Your task to perform on an android device: make emails show in primary in the gmail app Image 0: 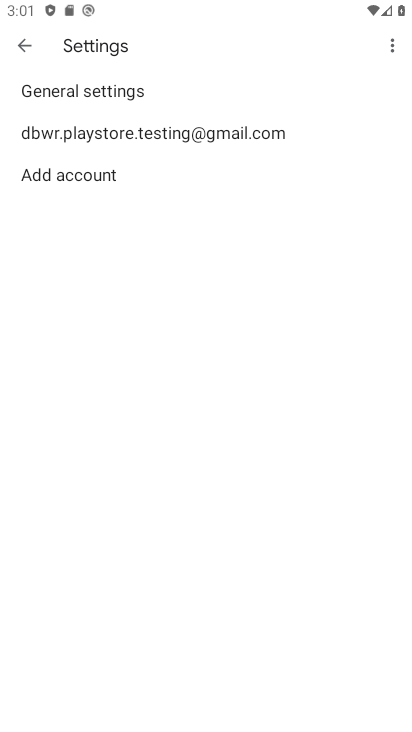
Step 0: press home button
Your task to perform on an android device: make emails show in primary in the gmail app Image 1: 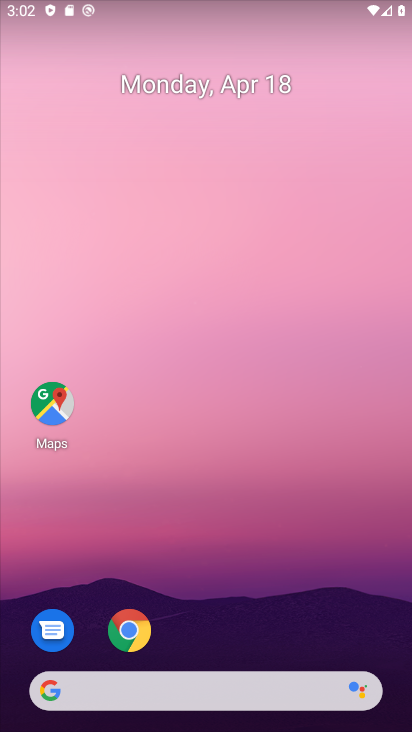
Step 1: drag from (286, 636) to (235, 166)
Your task to perform on an android device: make emails show in primary in the gmail app Image 2: 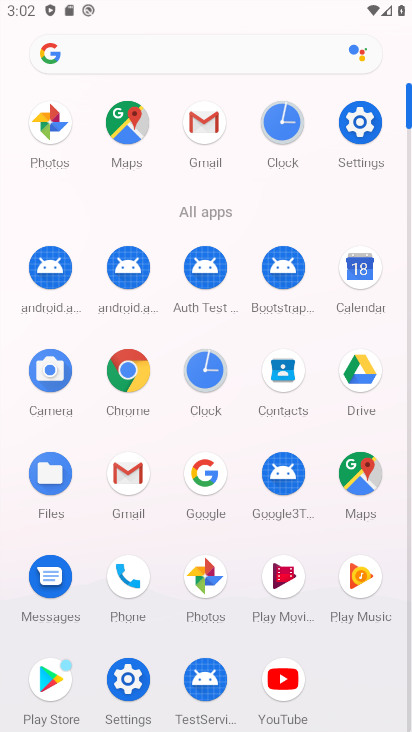
Step 2: click (206, 131)
Your task to perform on an android device: make emails show in primary in the gmail app Image 3: 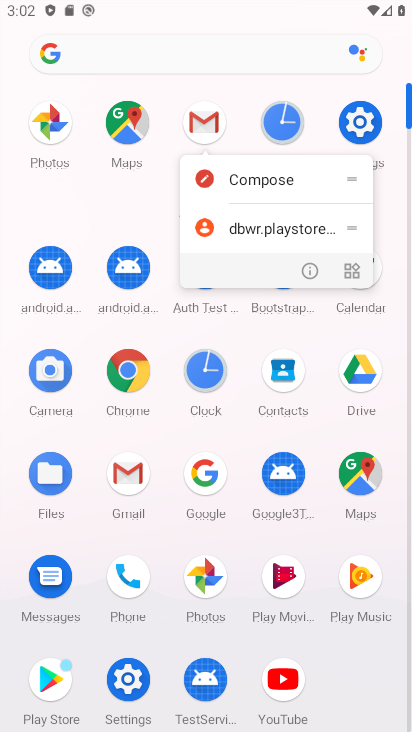
Step 3: click (208, 131)
Your task to perform on an android device: make emails show in primary in the gmail app Image 4: 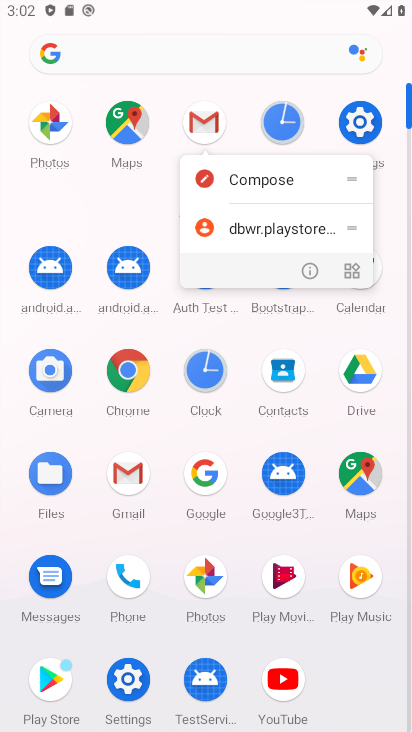
Step 4: click (208, 131)
Your task to perform on an android device: make emails show in primary in the gmail app Image 5: 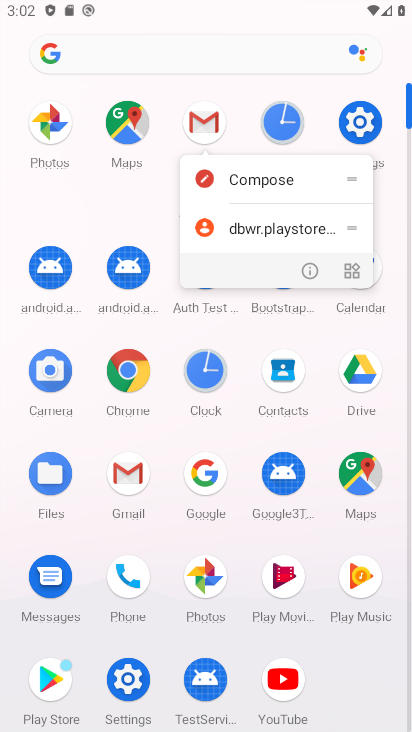
Step 5: click (216, 122)
Your task to perform on an android device: make emails show in primary in the gmail app Image 6: 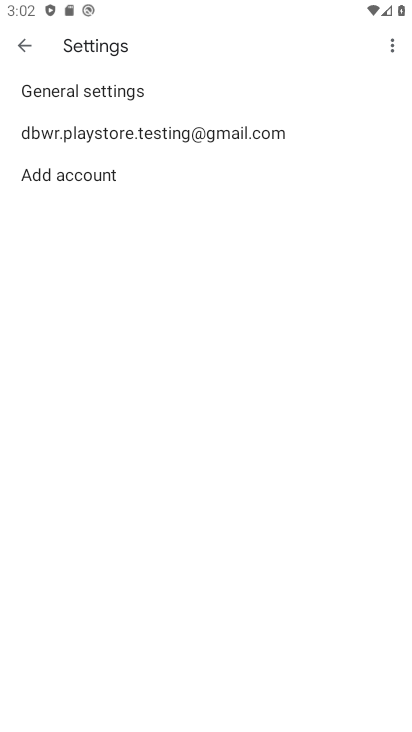
Step 6: click (199, 135)
Your task to perform on an android device: make emails show in primary in the gmail app Image 7: 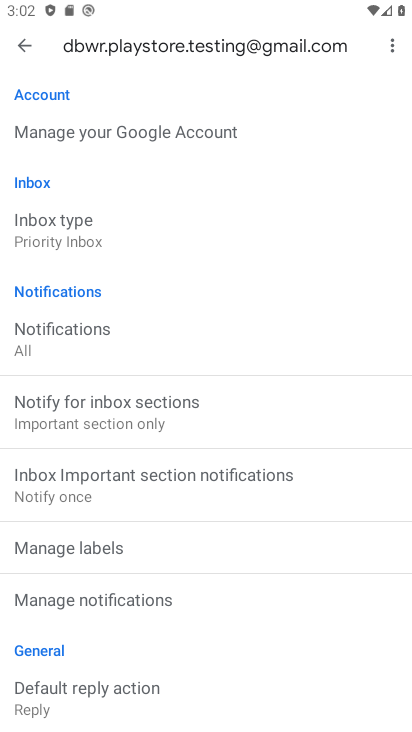
Step 7: click (41, 221)
Your task to perform on an android device: make emails show in primary in the gmail app Image 8: 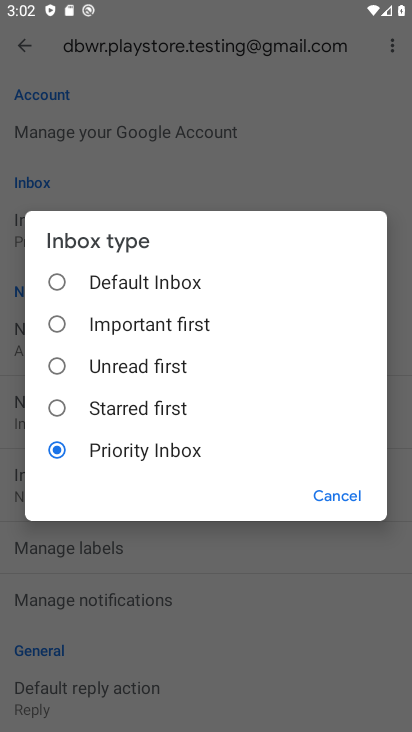
Step 8: click (110, 272)
Your task to perform on an android device: make emails show in primary in the gmail app Image 9: 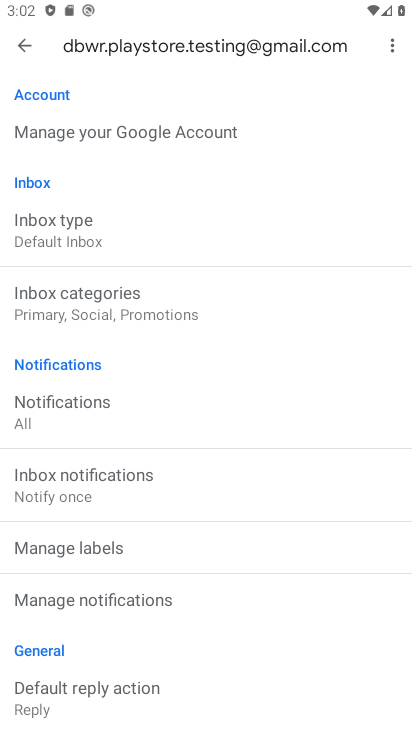
Step 9: click (232, 573)
Your task to perform on an android device: make emails show in primary in the gmail app Image 10: 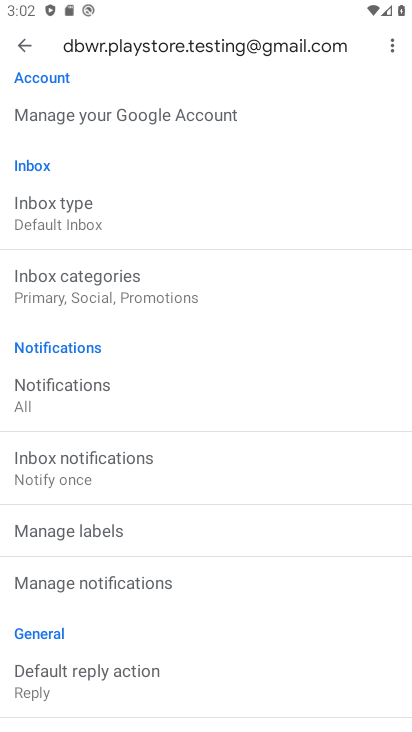
Step 10: click (117, 286)
Your task to perform on an android device: make emails show in primary in the gmail app Image 11: 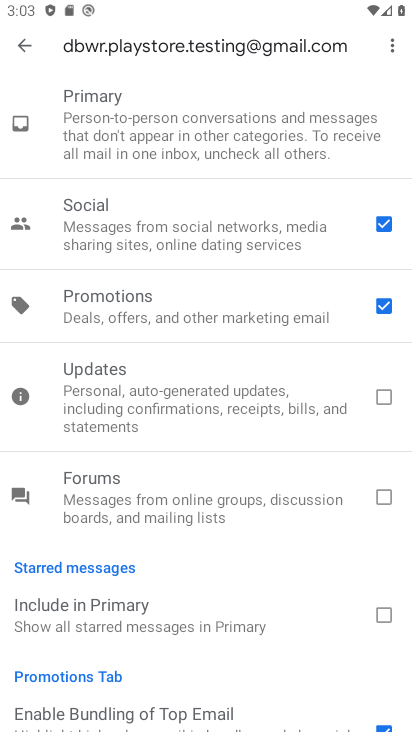
Step 11: task complete